Your task to perform on an android device: Show me popular videos on Youtube Image 0: 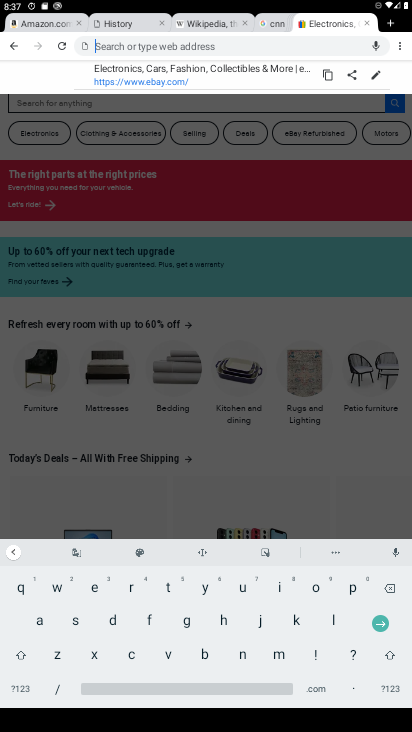
Step 0: press home button
Your task to perform on an android device: Show me popular videos on Youtube Image 1: 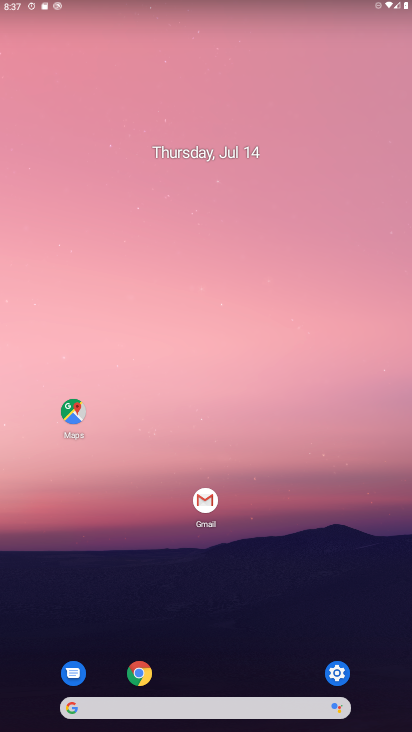
Step 1: drag from (291, 708) to (276, 50)
Your task to perform on an android device: Show me popular videos on Youtube Image 2: 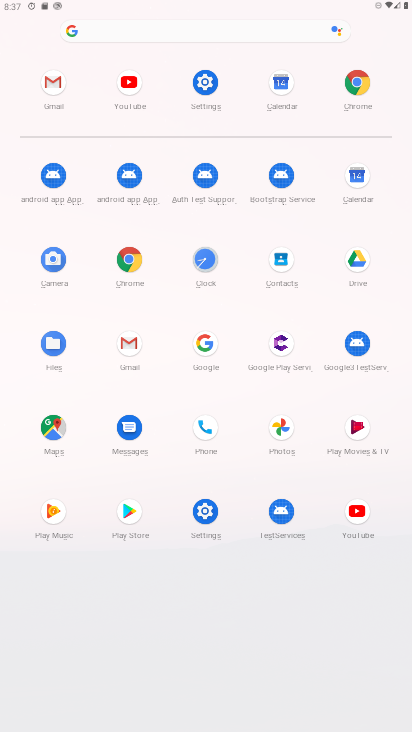
Step 2: click (358, 512)
Your task to perform on an android device: Show me popular videos on Youtube Image 3: 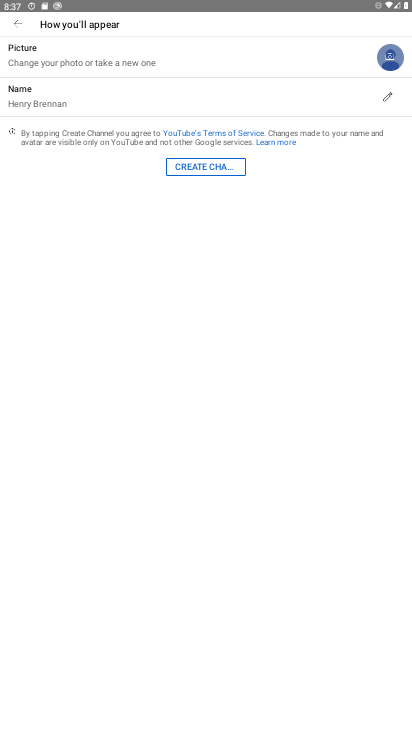
Step 3: click (22, 28)
Your task to perform on an android device: Show me popular videos on Youtube Image 4: 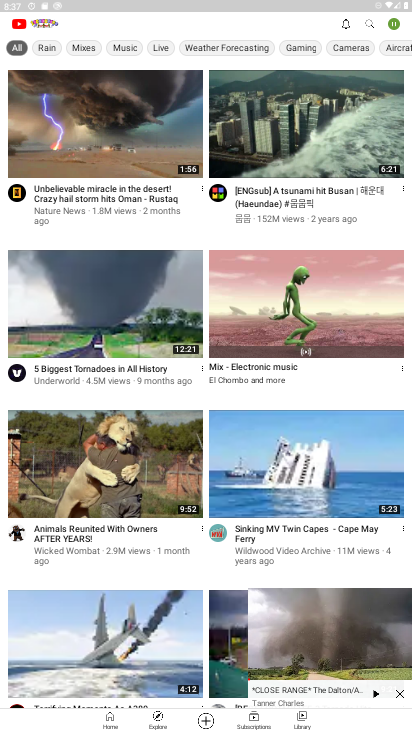
Step 4: click (371, 21)
Your task to perform on an android device: Show me popular videos on Youtube Image 5: 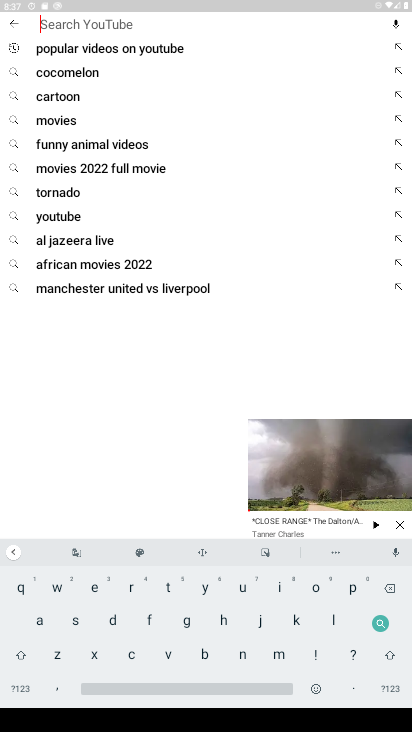
Step 5: click (138, 45)
Your task to perform on an android device: Show me popular videos on Youtube Image 6: 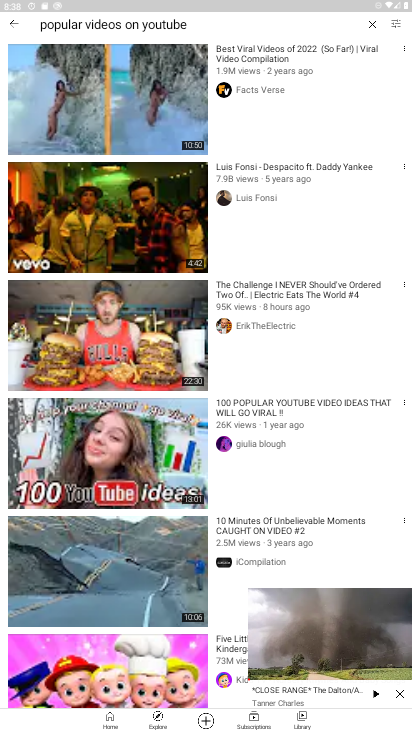
Step 6: task complete